Your task to perform on an android device: change text size in settings app Image 0: 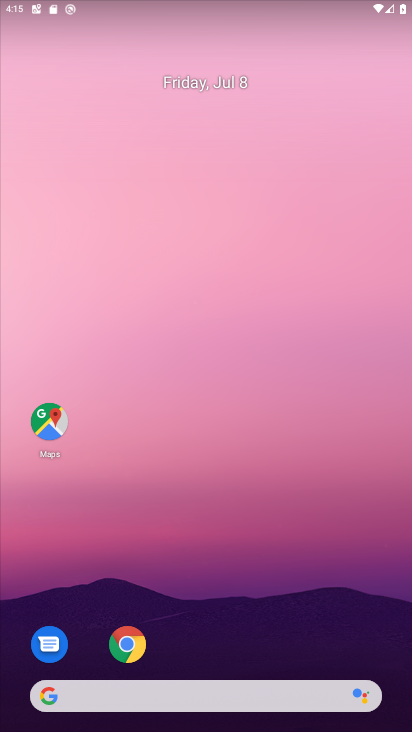
Step 0: drag from (371, 653) to (305, 241)
Your task to perform on an android device: change text size in settings app Image 1: 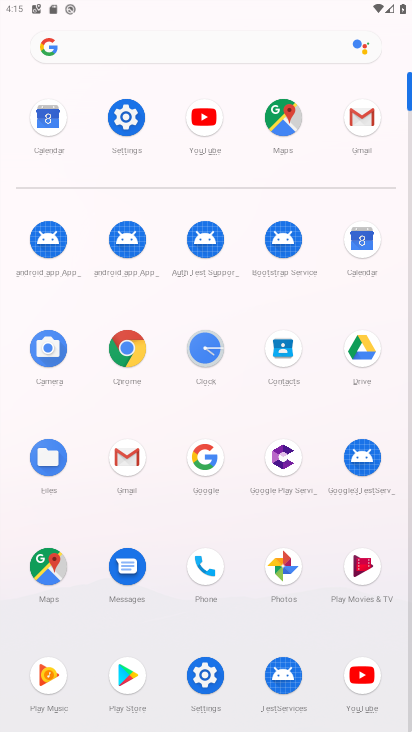
Step 1: click (206, 675)
Your task to perform on an android device: change text size in settings app Image 2: 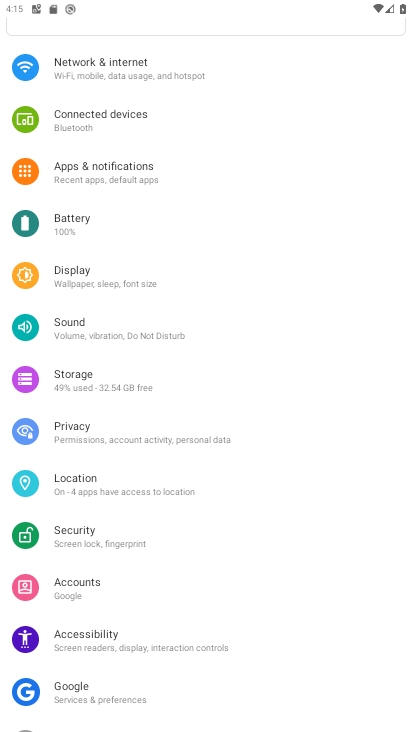
Step 2: click (76, 278)
Your task to perform on an android device: change text size in settings app Image 3: 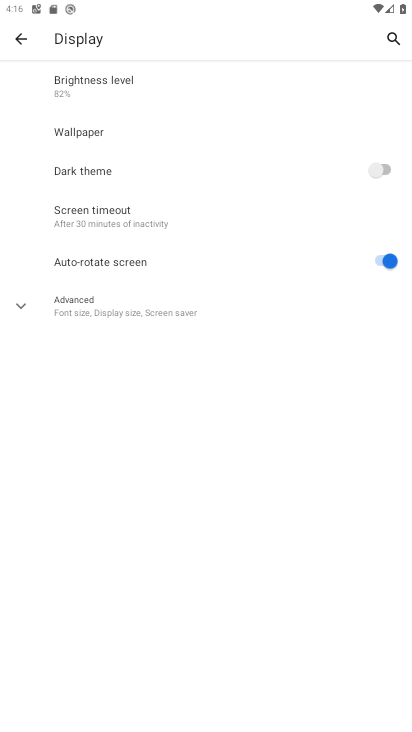
Step 3: click (34, 301)
Your task to perform on an android device: change text size in settings app Image 4: 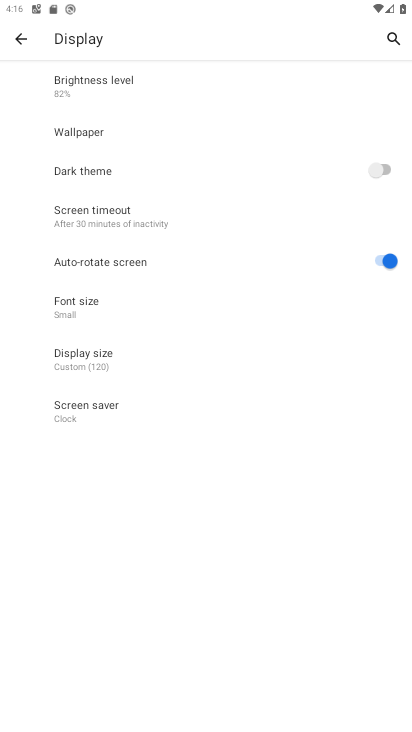
Step 4: click (65, 304)
Your task to perform on an android device: change text size in settings app Image 5: 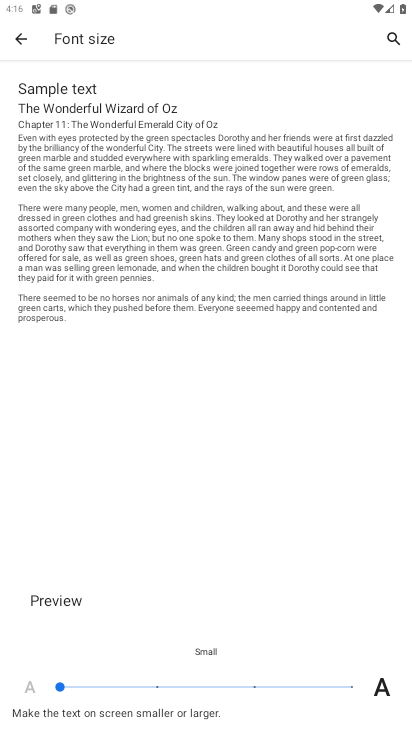
Step 5: click (352, 687)
Your task to perform on an android device: change text size in settings app Image 6: 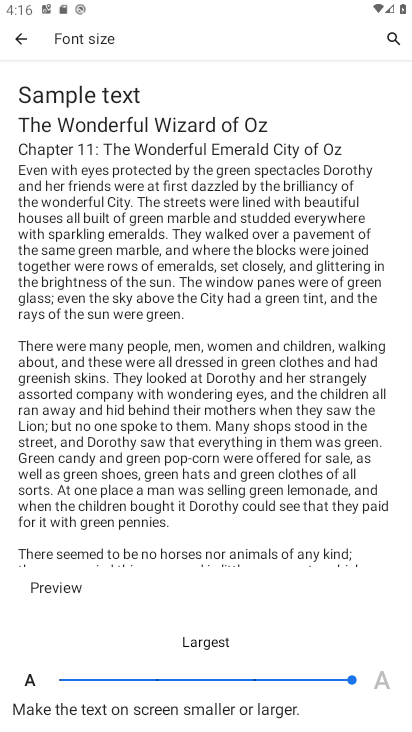
Step 6: task complete